Your task to perform on an android device: Open calendar and show me the third week of next month Image 0: 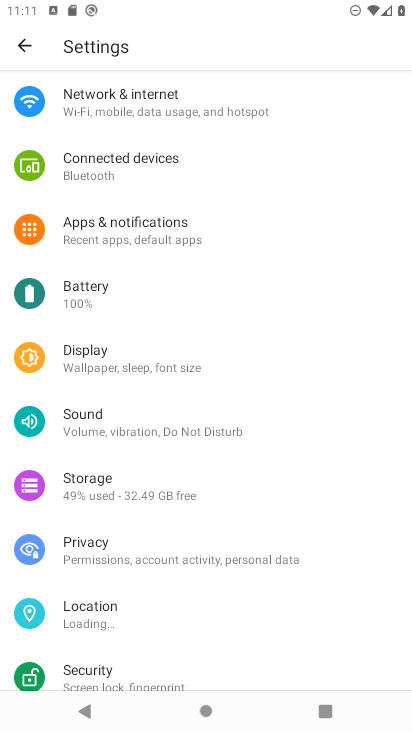
Step 0: press home button
Your task to perform on an android device: Open calendar and show me the third week of next month Image 1: 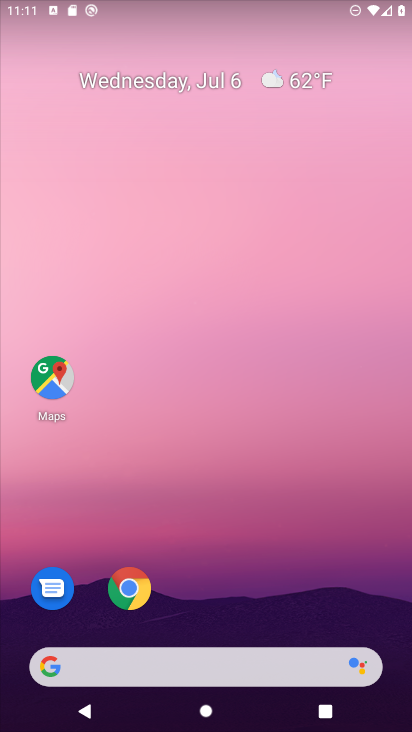
Step 1: drag from (389, 611) to (250, 83)
Your task to perform on an android device: Open calendar and show me the third week of next month Image 2: 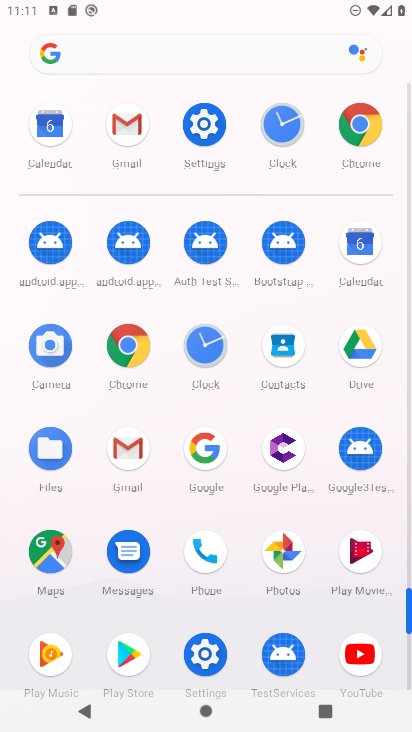
Step 2: click (358, 243)
Your task to perform on an android device: Open calendar and show me the third week of next month Image 3: 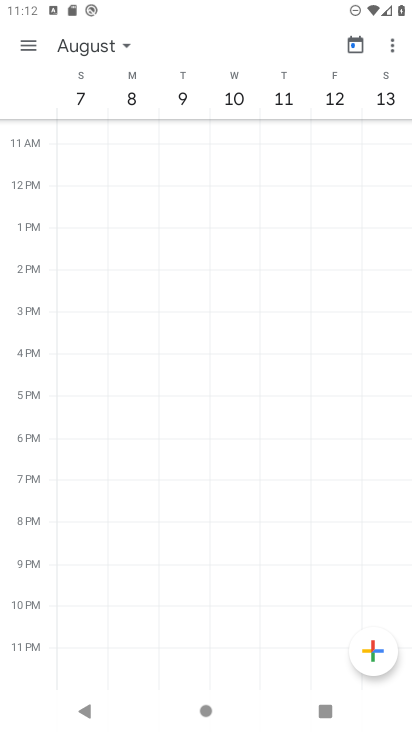
Step 3: click (121, 45)
Your task to perform on an android device: Open calendar and show me the third week of next month Image 4: 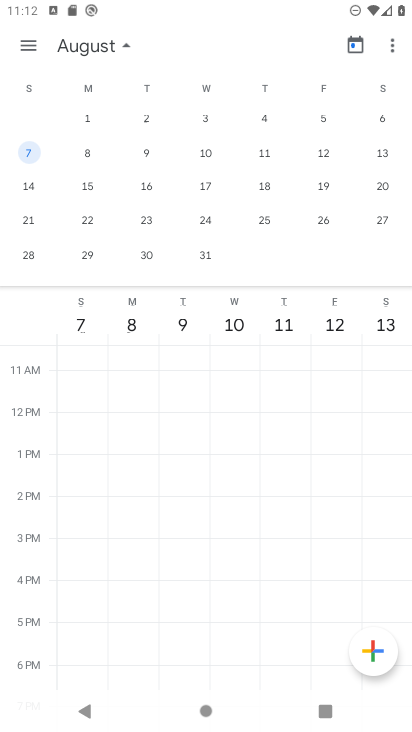
Step 4: click (29, 188)
Your task to perform on an android device: Open calendar and show me the third week of next month Image 5: 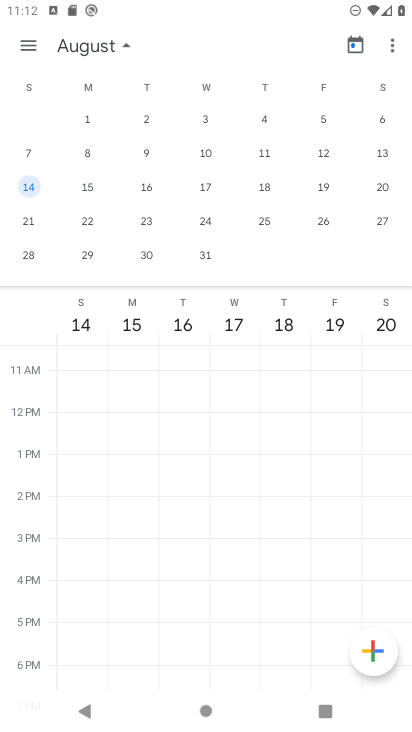
Step 5: task complete